Your task to perform on an android device: Go to CNN.com Image 0: 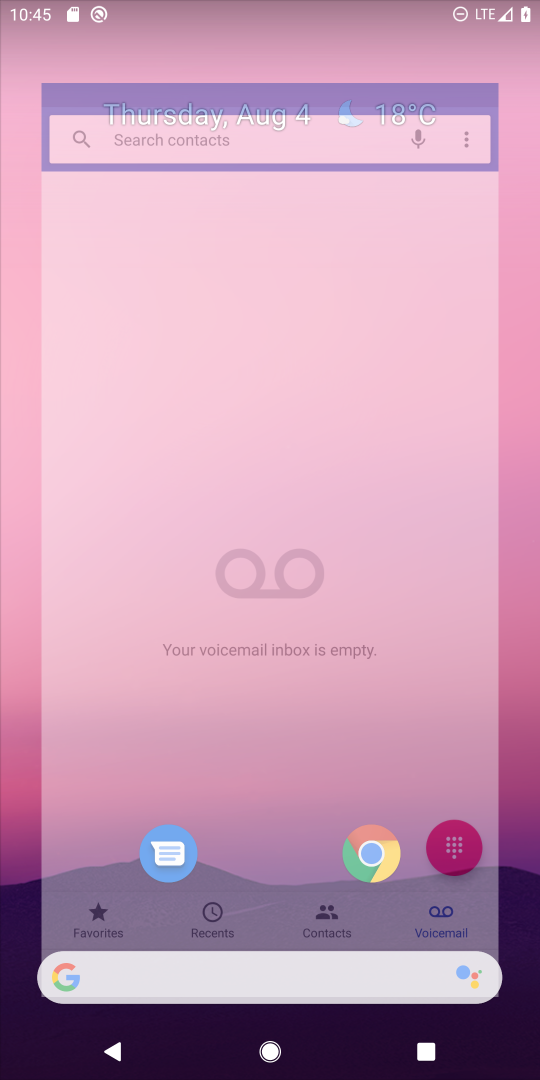
Step 0: drag from (304, 928) to (231, 115)
Your task to perform on an android device: Go to CNN.com Image 1: 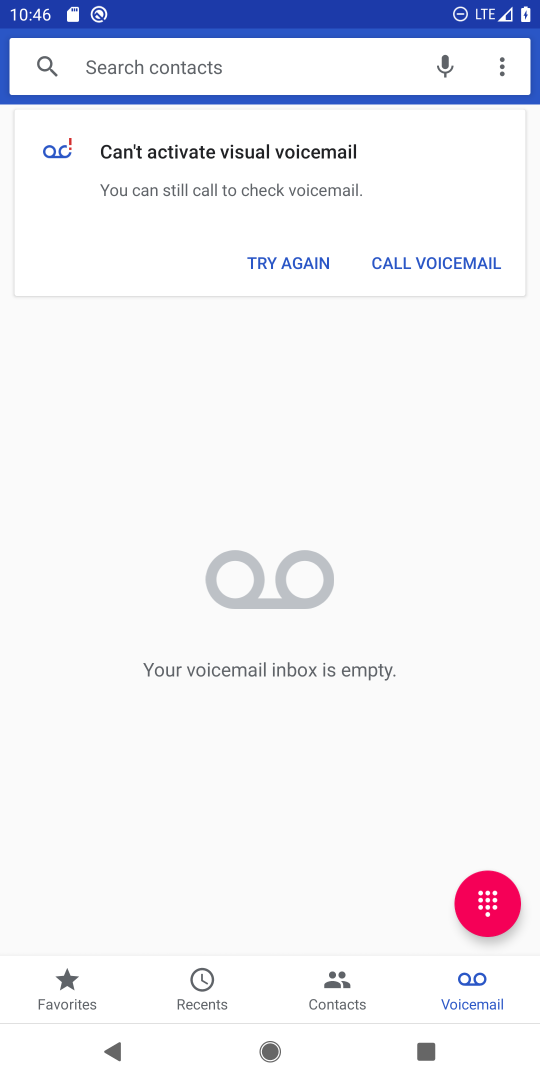
Step 1: press back button
Your task to perform on an android device: Go to CNN.com Image 2: 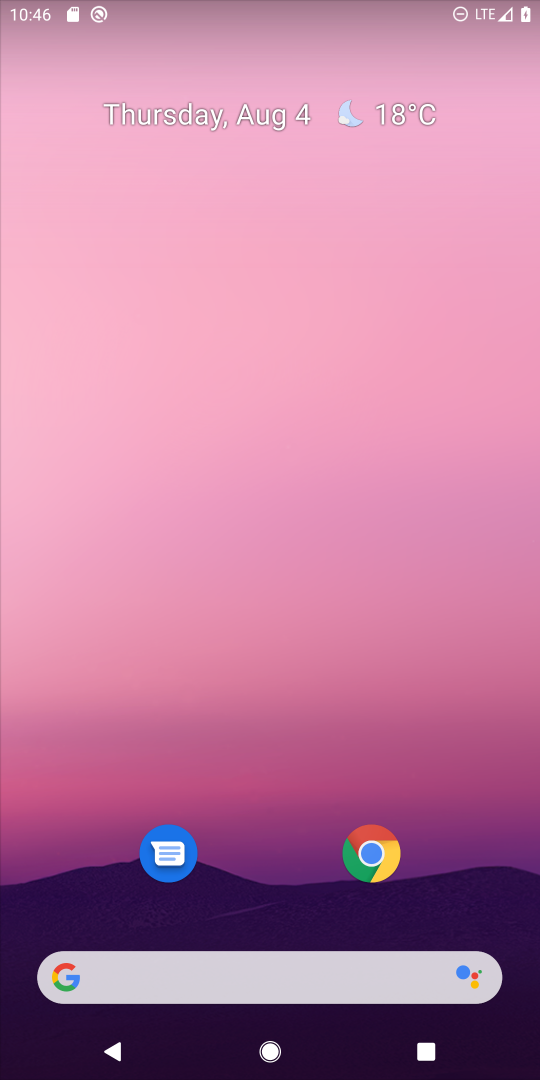
Step 2: drag from (291, 912) to (184, 26)
Your task to perform on an android device: Go to CNN.com Image 3: 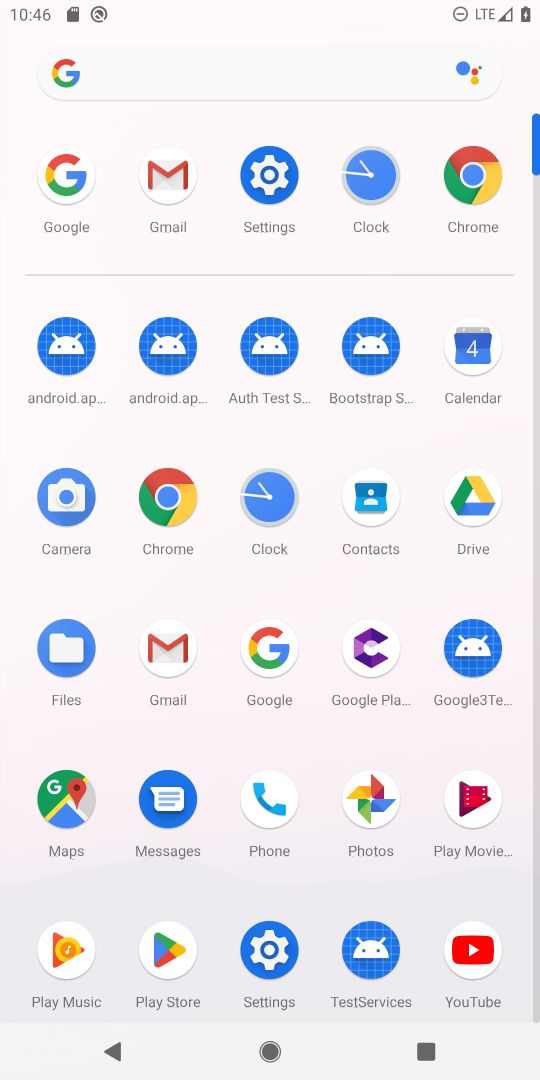
Step 3: click (473, 155)
Your task to perform on an android device: Go to CNN.com Image 4: 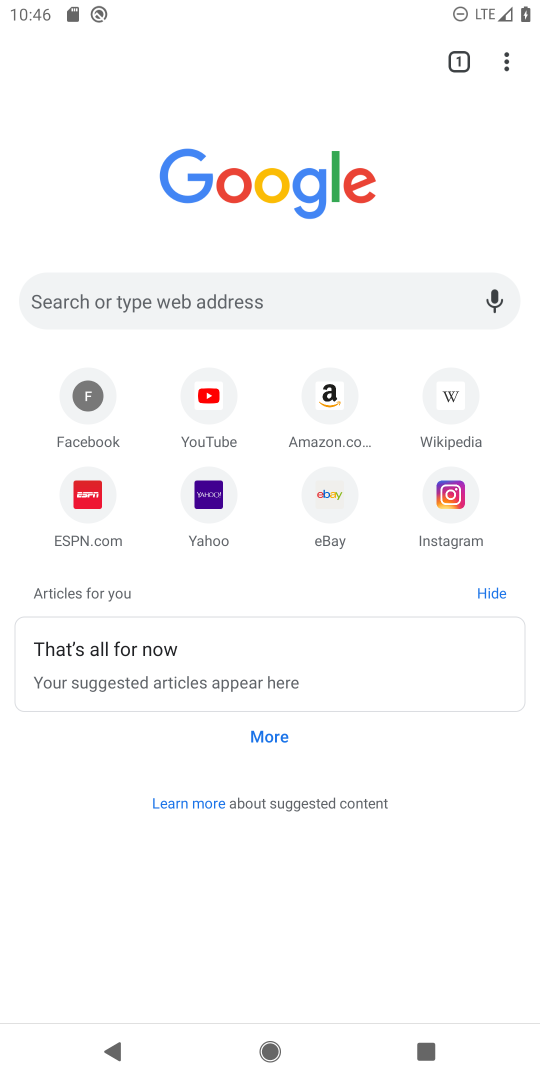
Step 4: click (176, 321)
Your task to perform on an android device: Go to CNN.com Image 5: 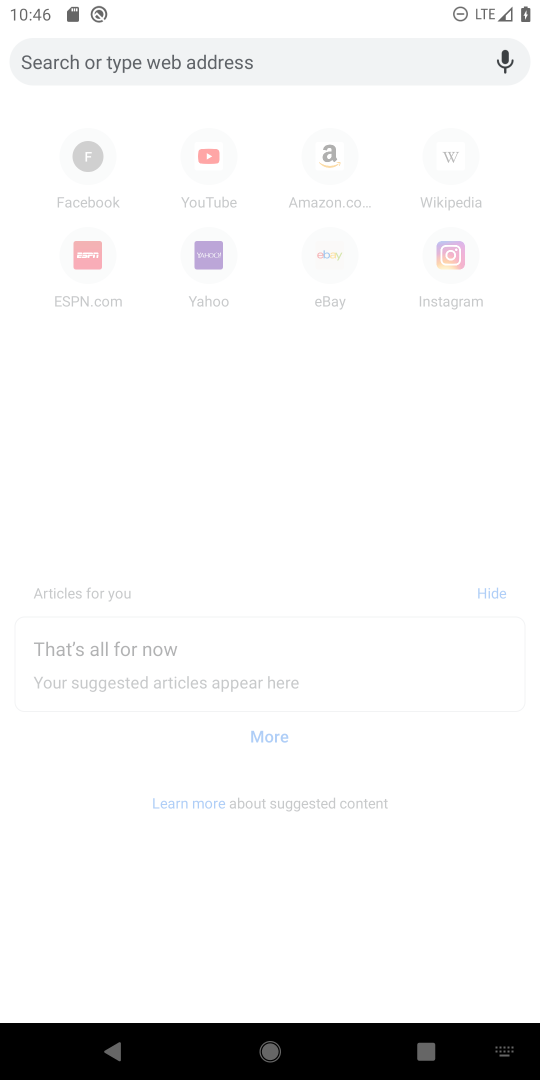
Step 5: type " CNN.com"
Your task to perform on an android device: Go to CNN.com Image 6: 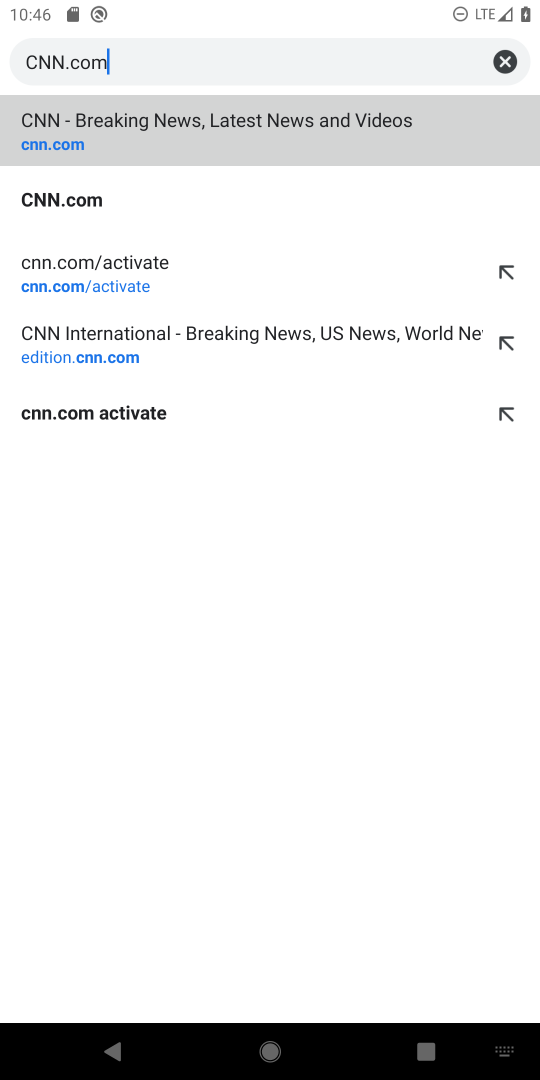
Step 6: type ""
Your task to perform on an android device: Go to CNN.com Image 7: 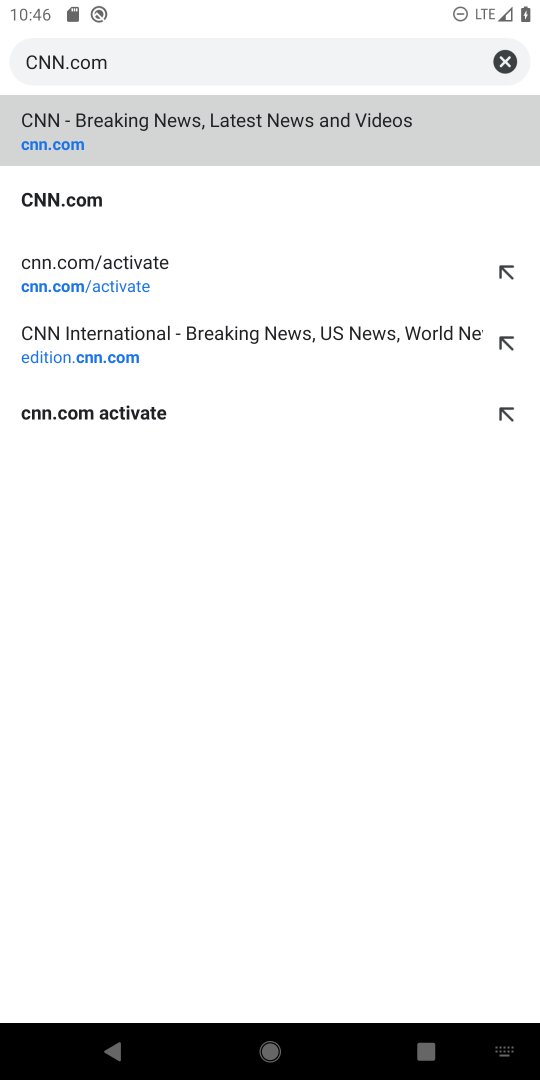
Step 7: click (258, 108)
Your task to perform on an android device: Go to CNN.com Image 8: 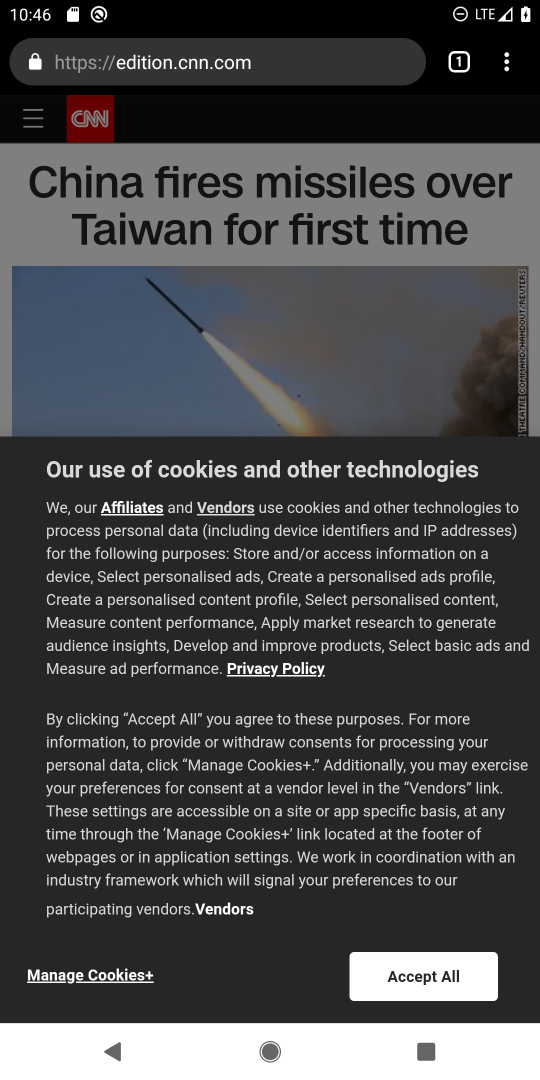
Step 8: task complete